Your task to perform on an android device: Go to Maps Image 0: 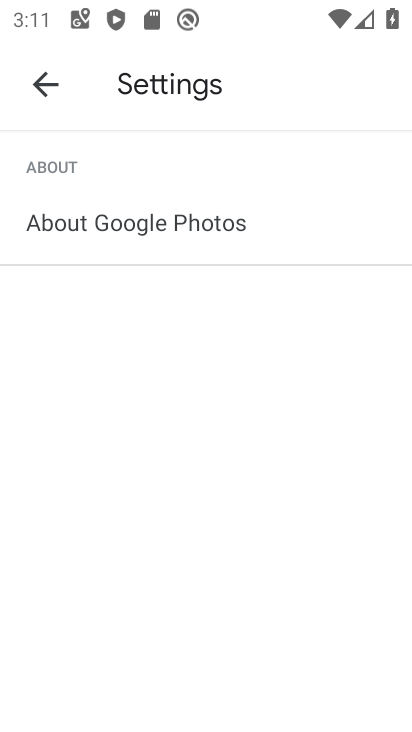
Step 0: press back button
Your task to perform on an android device: Go to Maps Image 1: 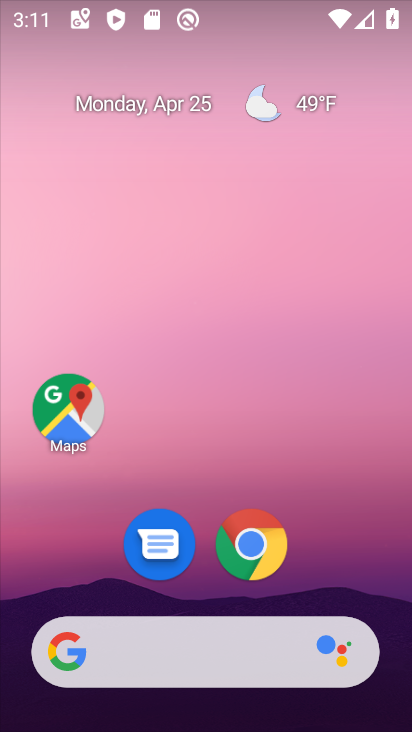
Step 1: click (70, 409)
Your task to perform on an android device: Go to Maps Image 2: 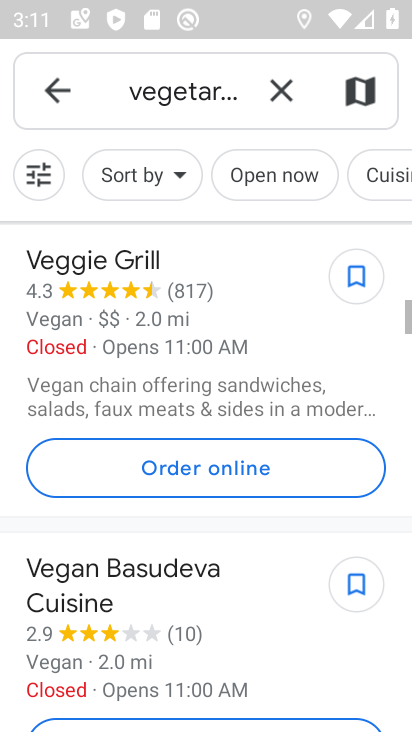
Step 2: task complete